Your task to perform on an android device: Clear all items from cart on amazon.com. Image 0: 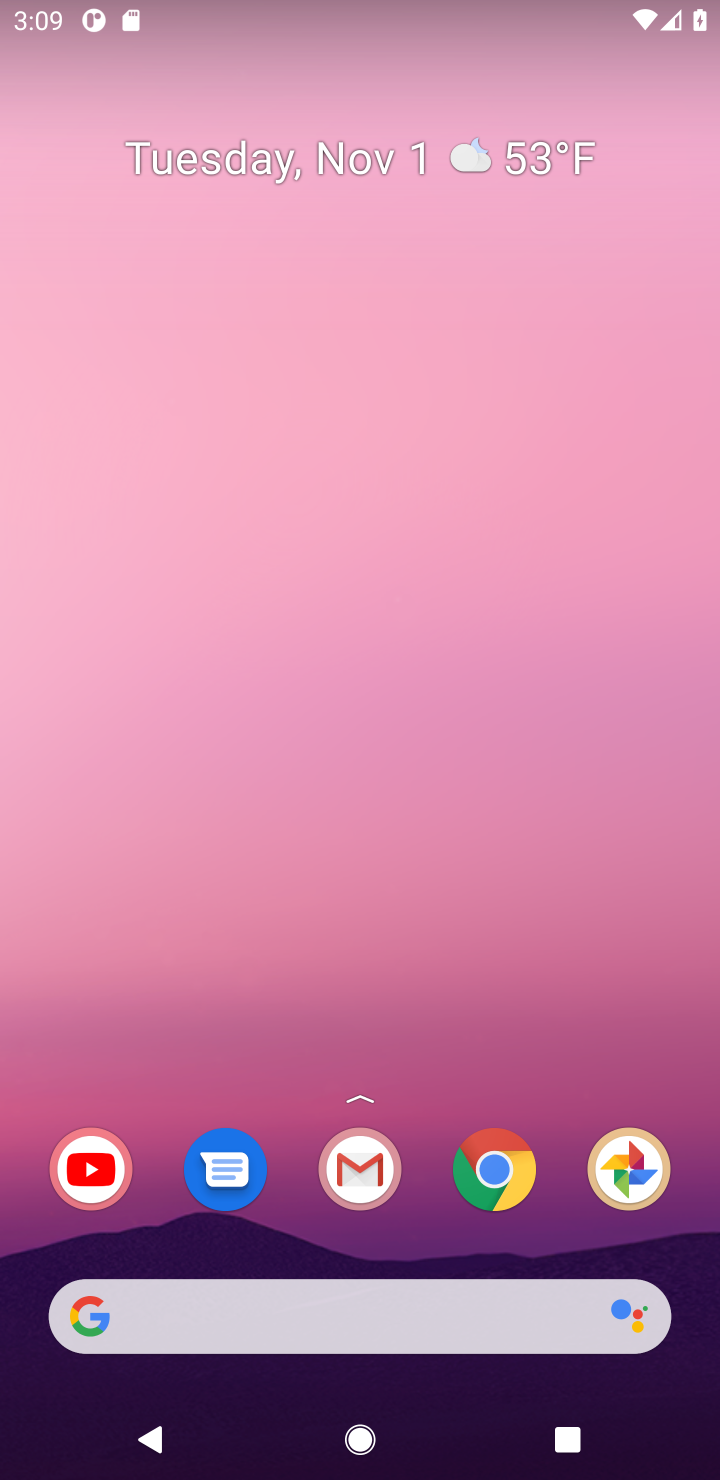
Step 0: press home button
Your task to perform on an android device: Clear all items from cart on amazon.com. Image 1: 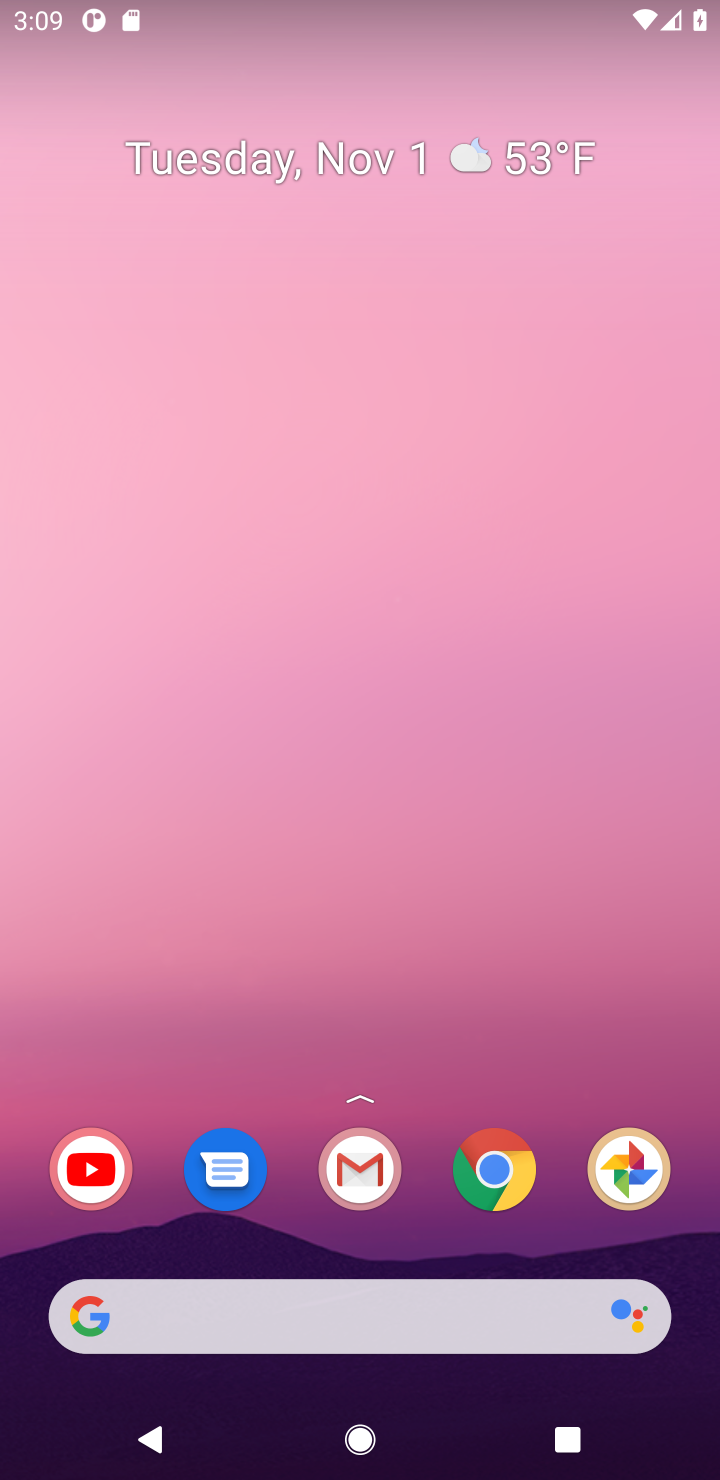
Step 1: drag from (430, 797) to (479, 122)
Your task to perform on an android device: Clear all items from cart on amazon.com. Image 2: 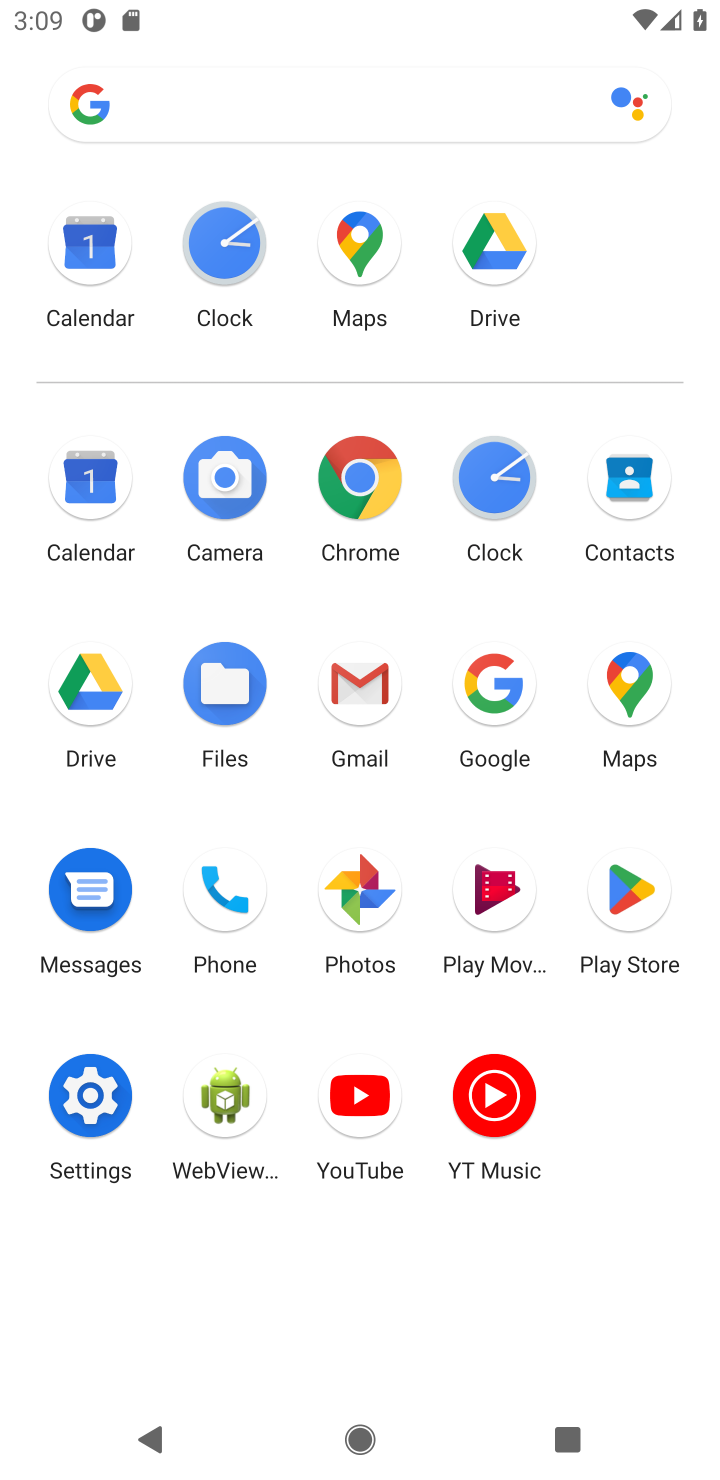
Step 2: click (355, 472)
Your task to perform on an android device: Clear all items from cart on amazon.com. Image 3: 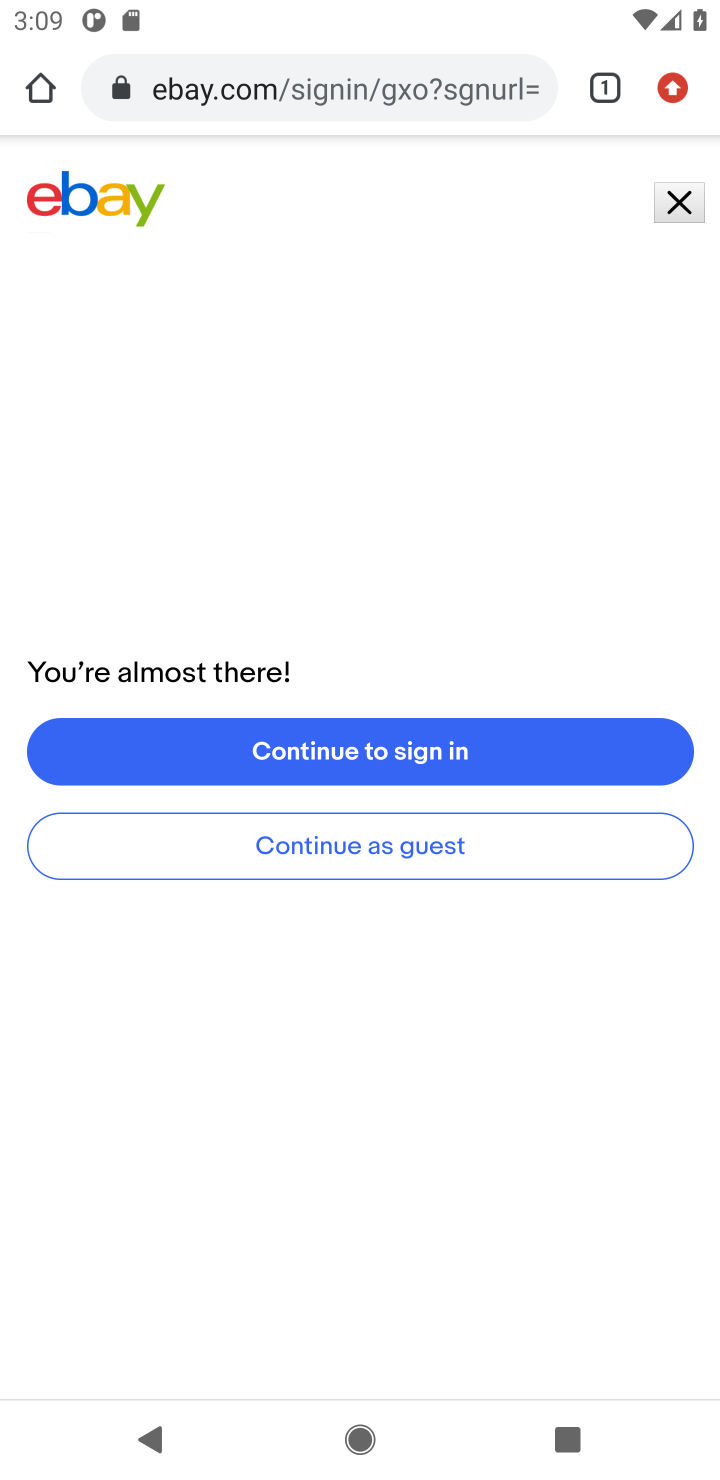
Step 3: click (232, 89)
Your task to perform on an android device: Clear all items from cart on amazon.com. Image 4: 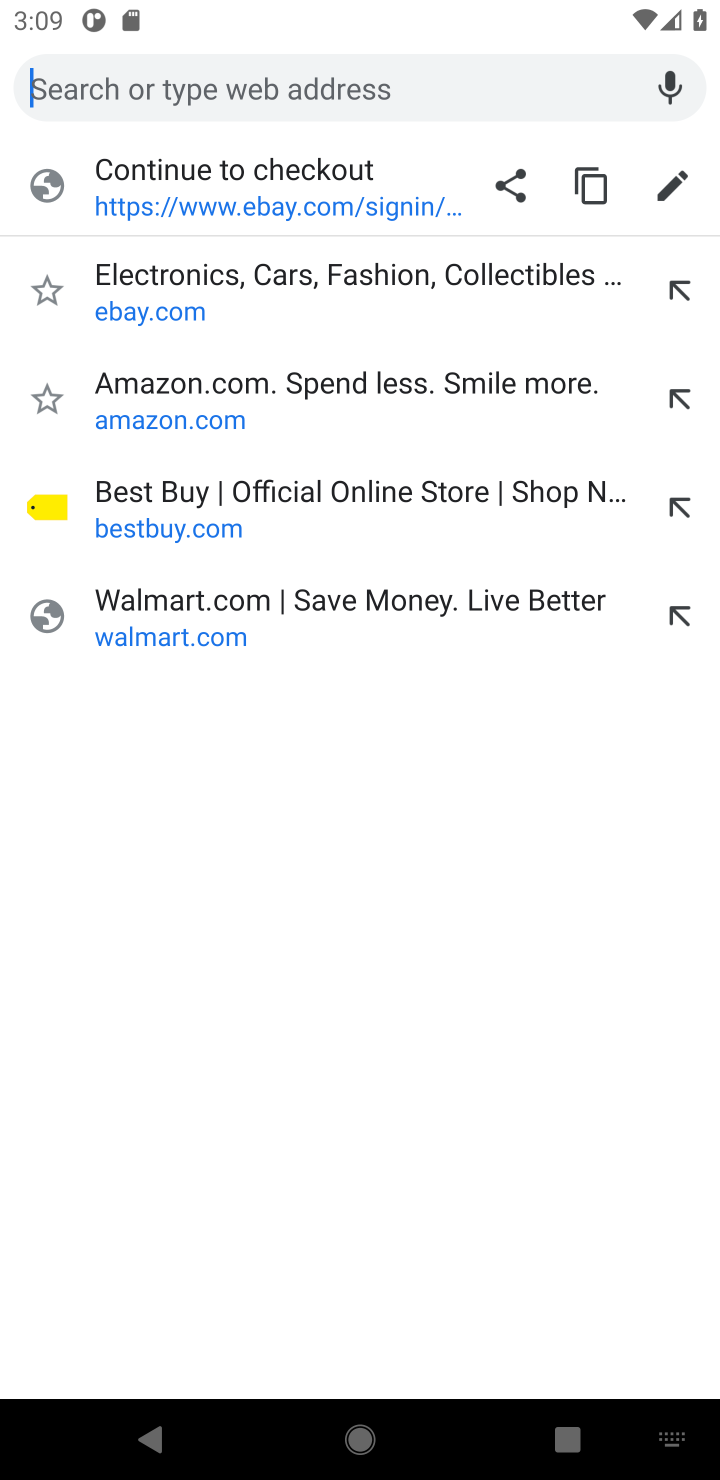
Step 4: click (162, 394)
Your task to perform on an android device: Clear all items from cart on amazon.com. Image 5: 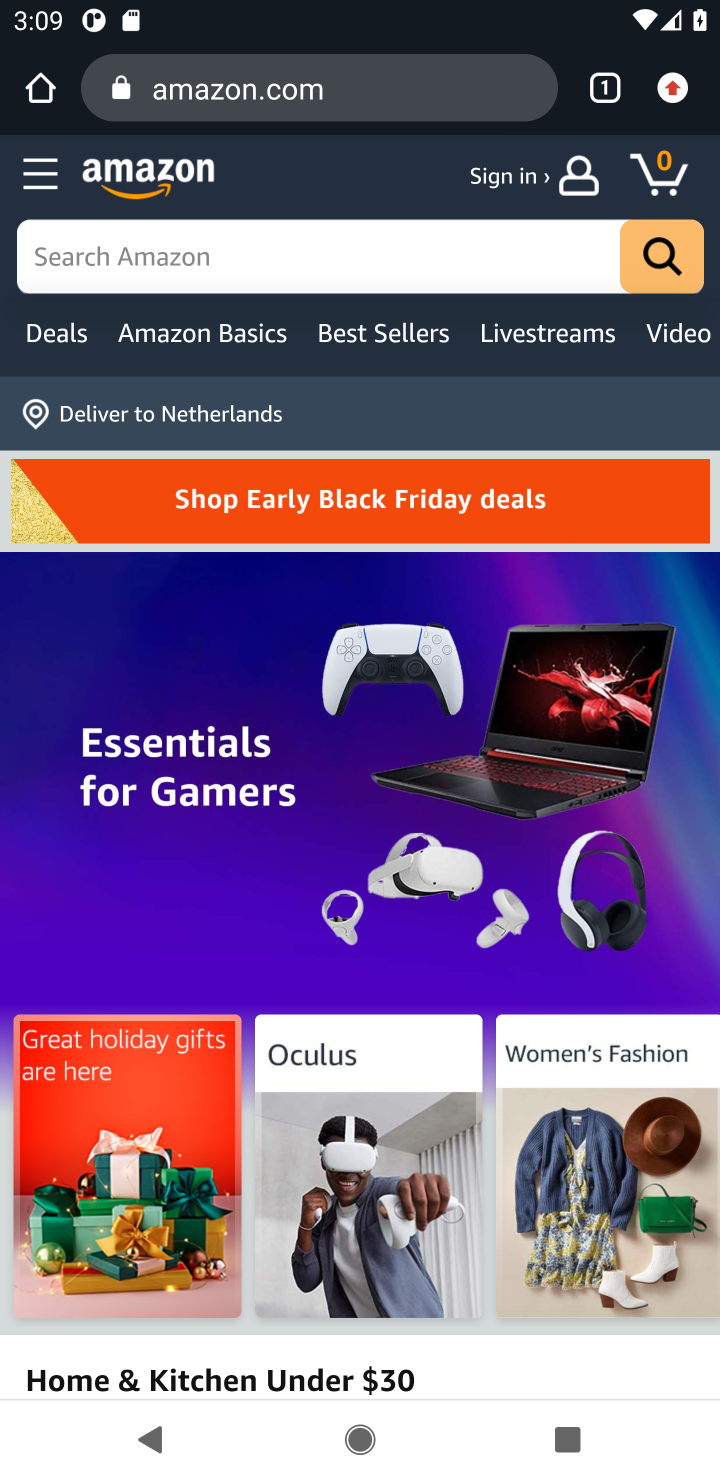
Step 5: click (136, 261)
Your task to perform on an android device: Clear all items from cart on amazon.com. Image 6: 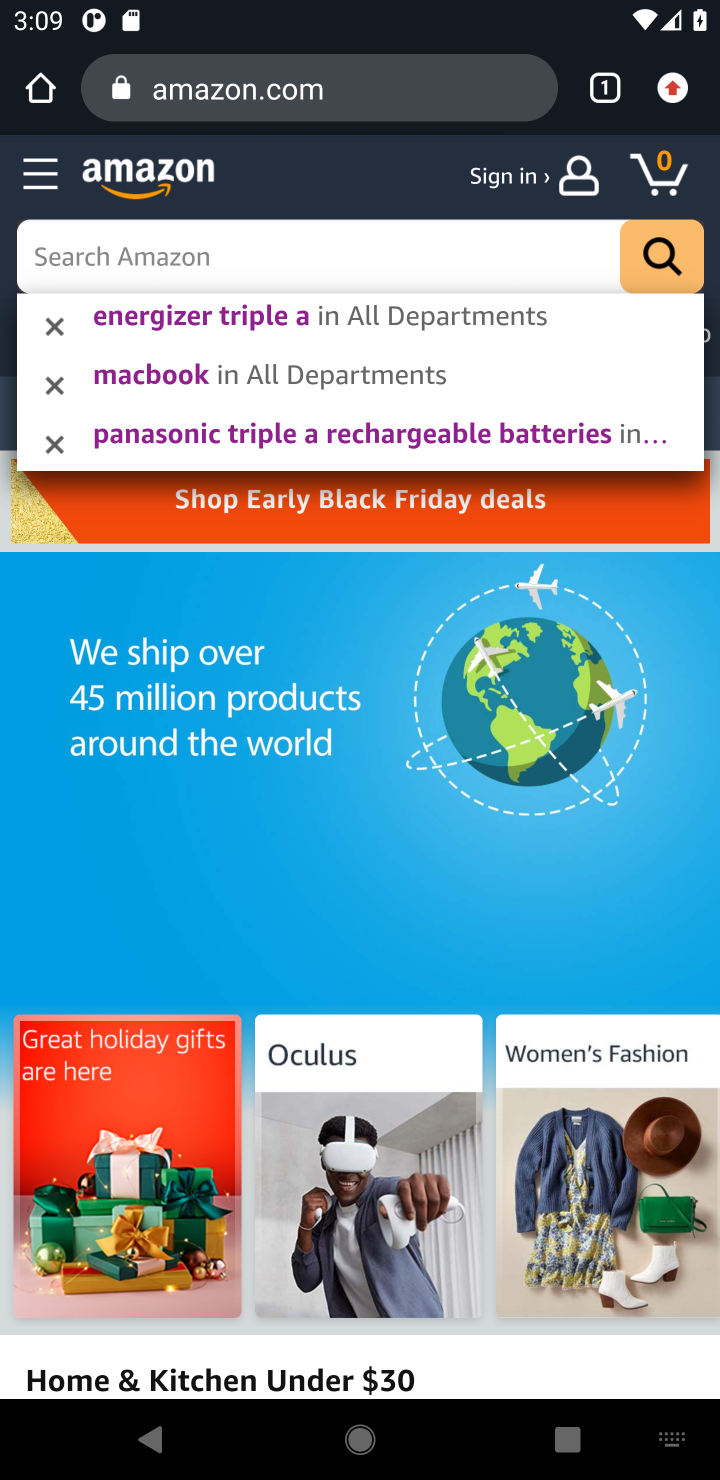
Step 6: click (662, 162)
Your task to perform on an android device: Clear all items from cart on amazon.com. Image 7: 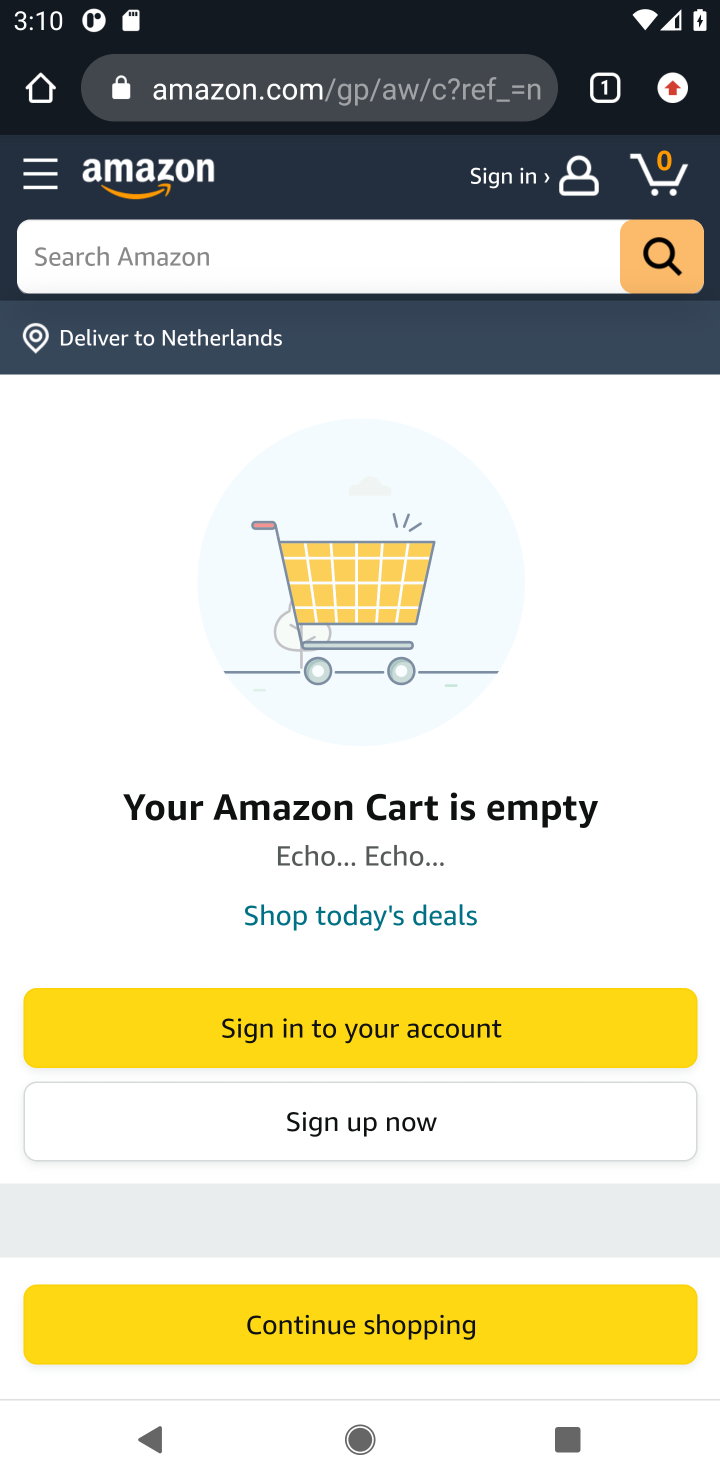
Step 7: task complete